Your task to perform on an android device: What's on the menu at IHOP? Image 0: 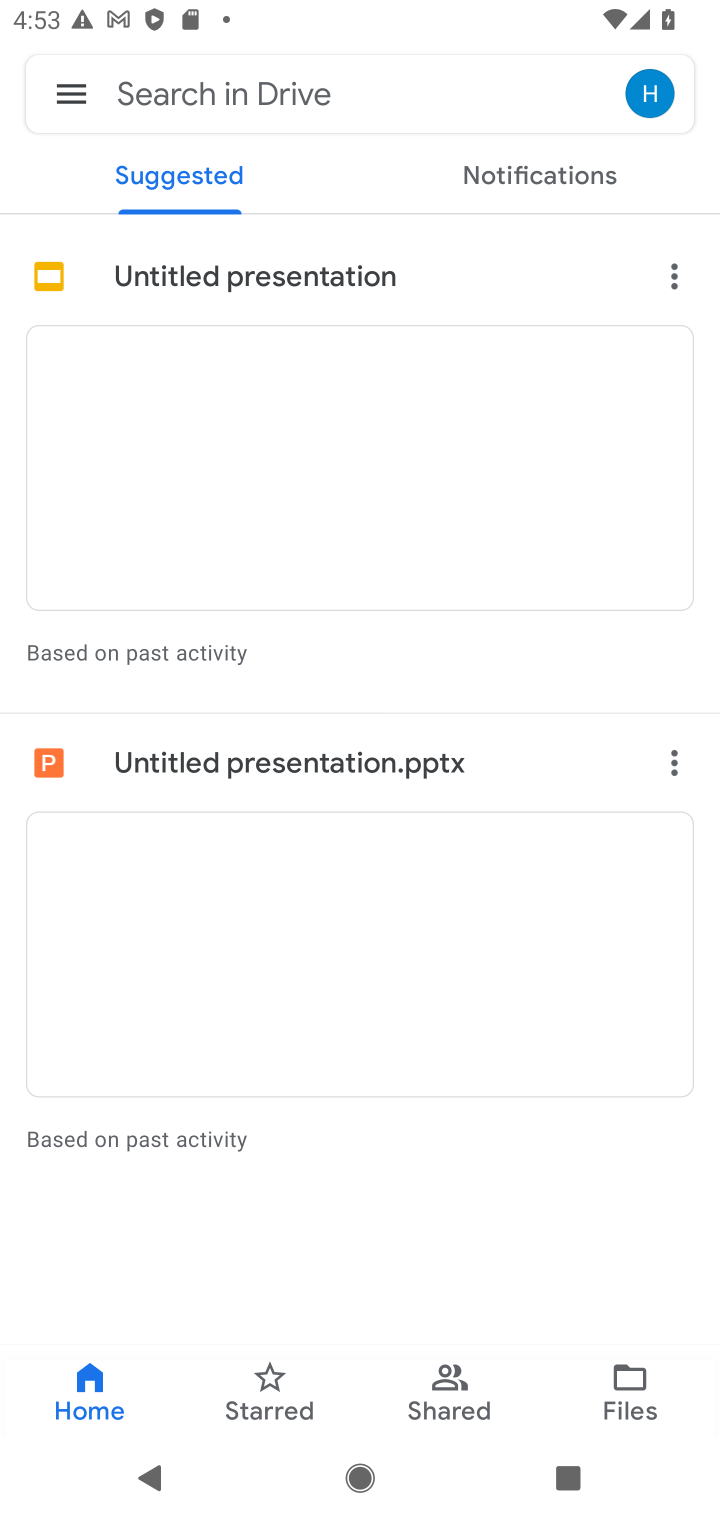
Step 0: press home button
Your task to perform on an android device: What's on the menu at IHOP? Image 1: 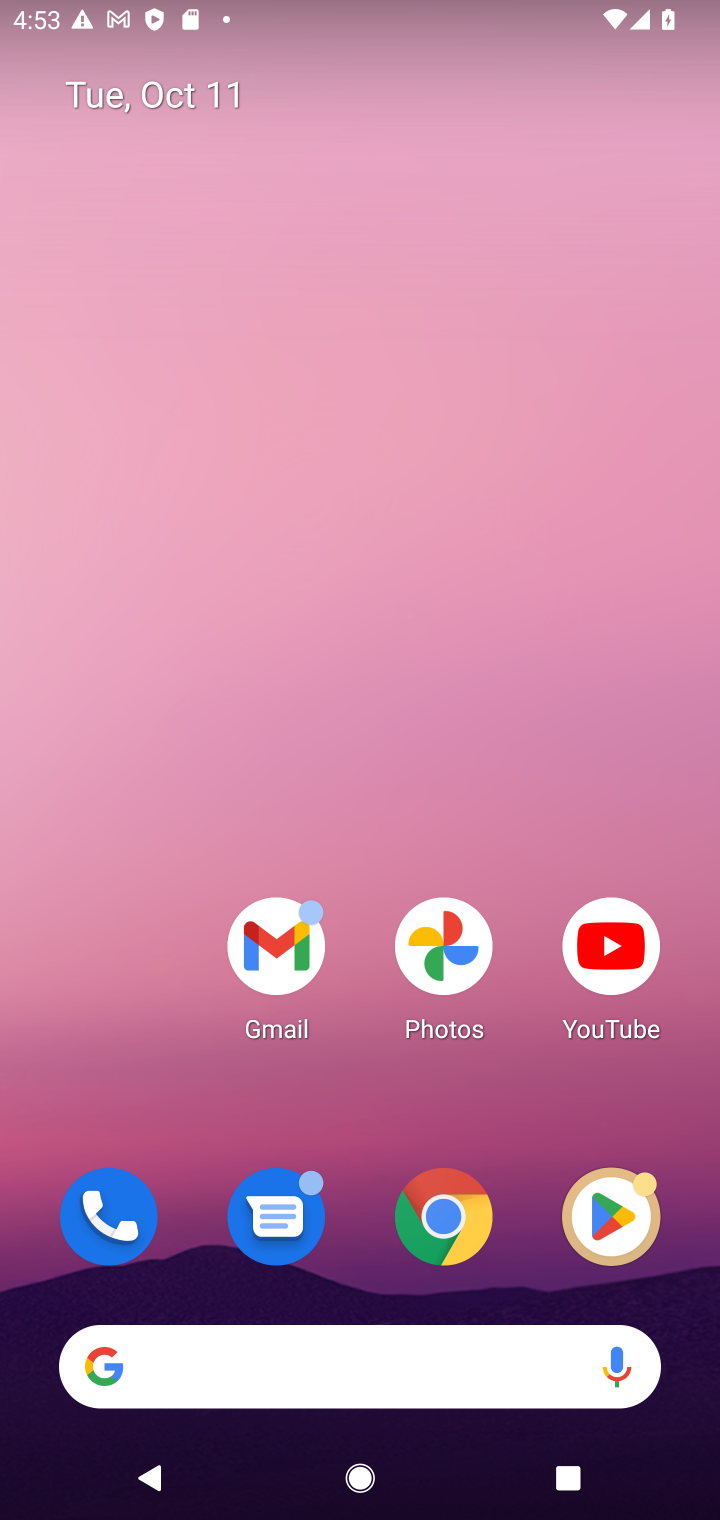
Step 1: click (440, 1222)
Your task to perform on an android device: What's on the menu at IHOP? Image 2: 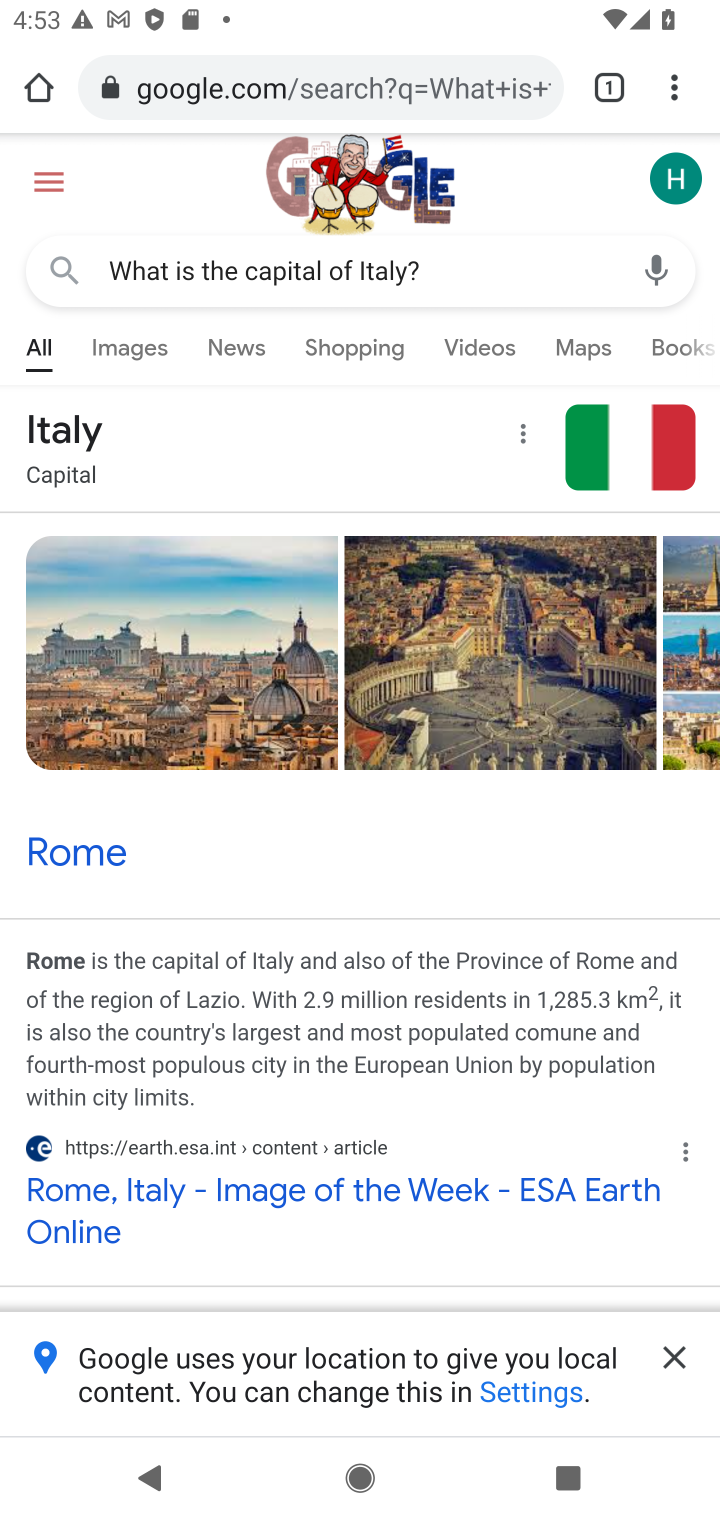
Step 2: click (452, 276)
Your task to perform on an android device: What's on the menu at IHOP? Image 3: 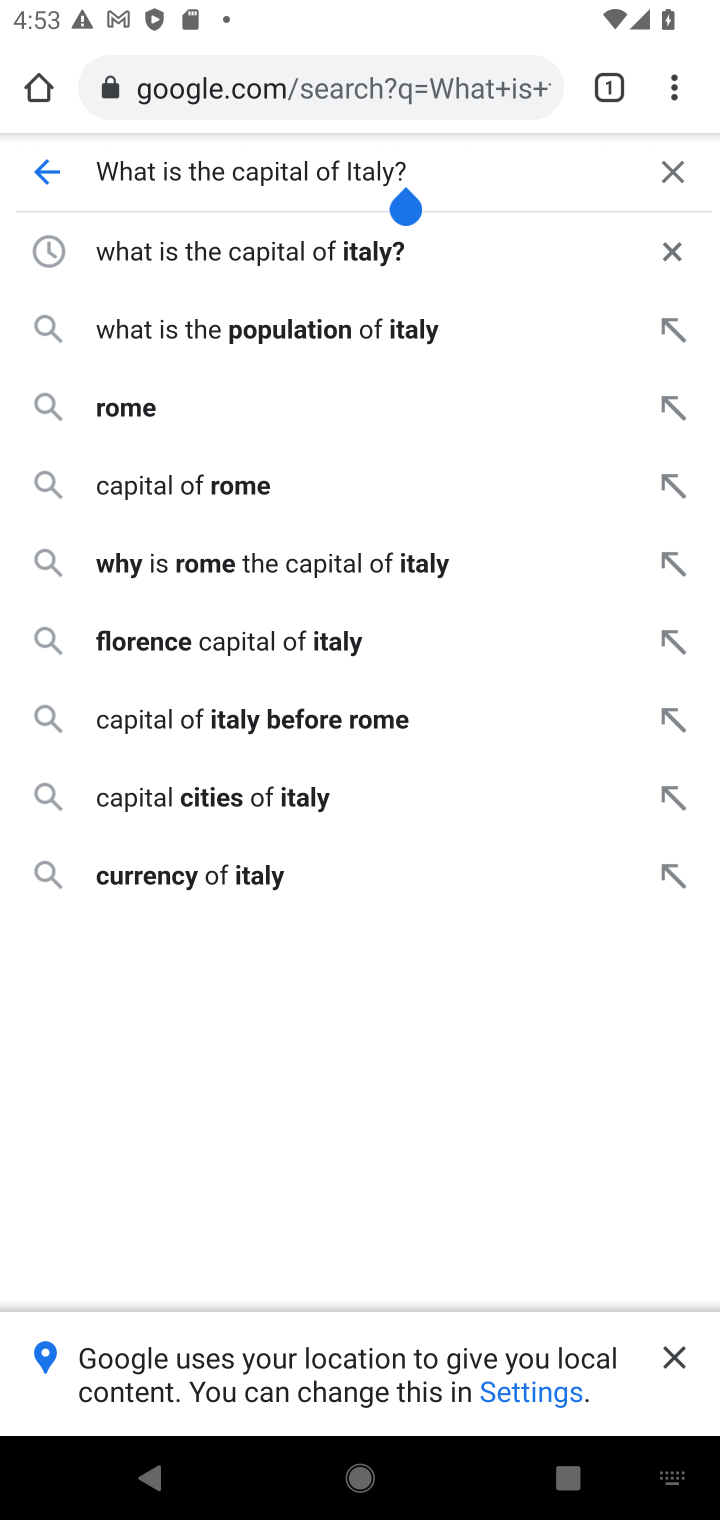
Step 3: click (497, 116)
Your task to perform on an android device: What's on the menu at IHOP? Image 4: 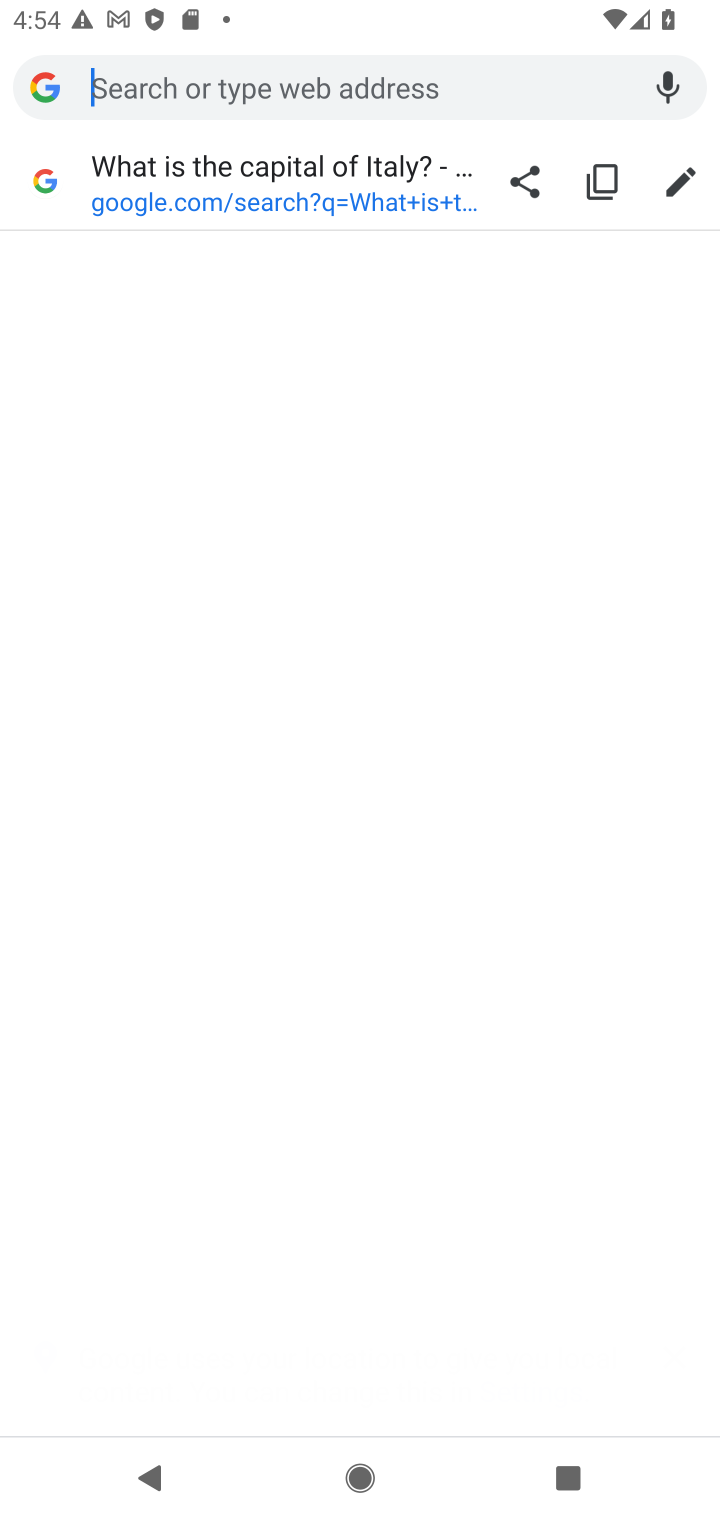
Step 4: type "What's on the menu at IHOP?"
Your task to perform on an android device: What's on the menu at IHOP? Image 5: 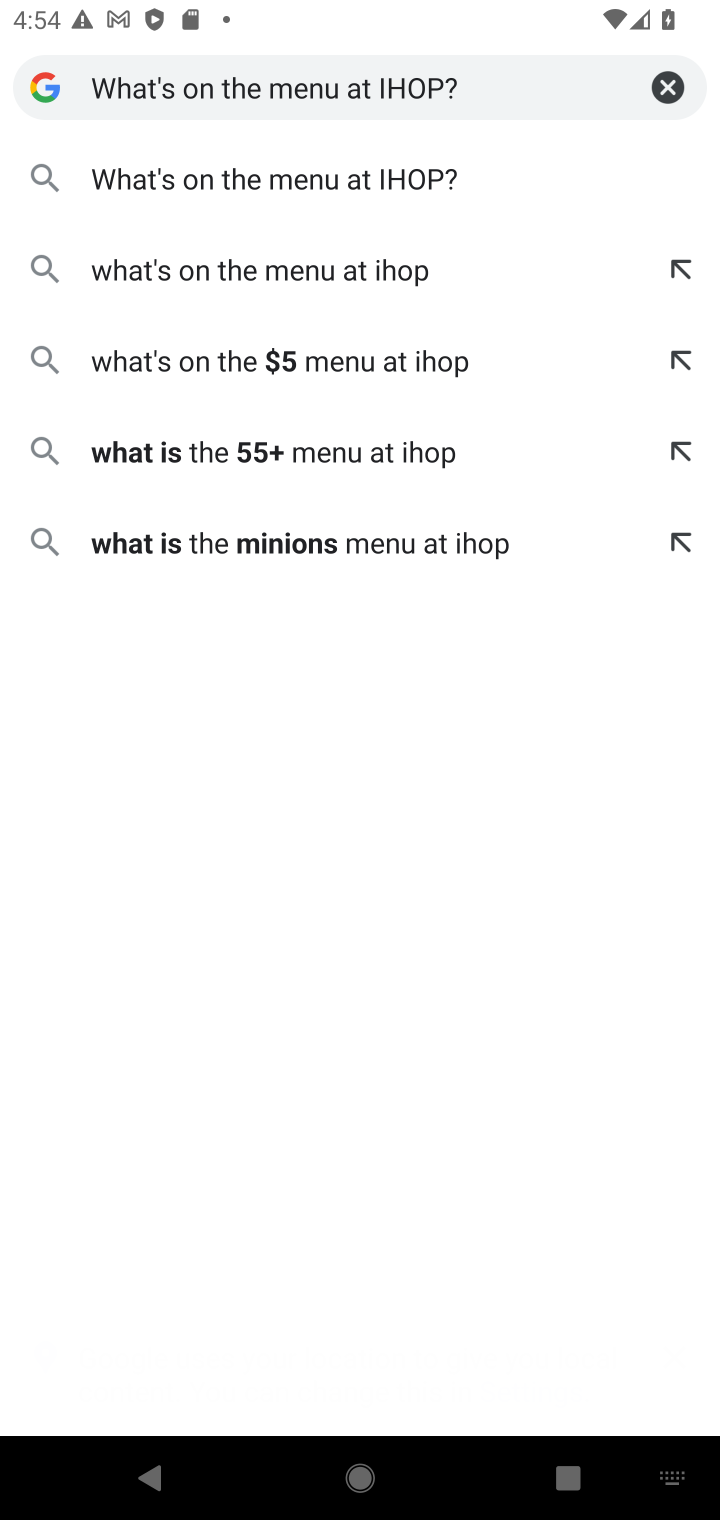
Step 5: click (296, 186)
Your task to perform on an android device: What's on the menu at IHOP? Image 6: 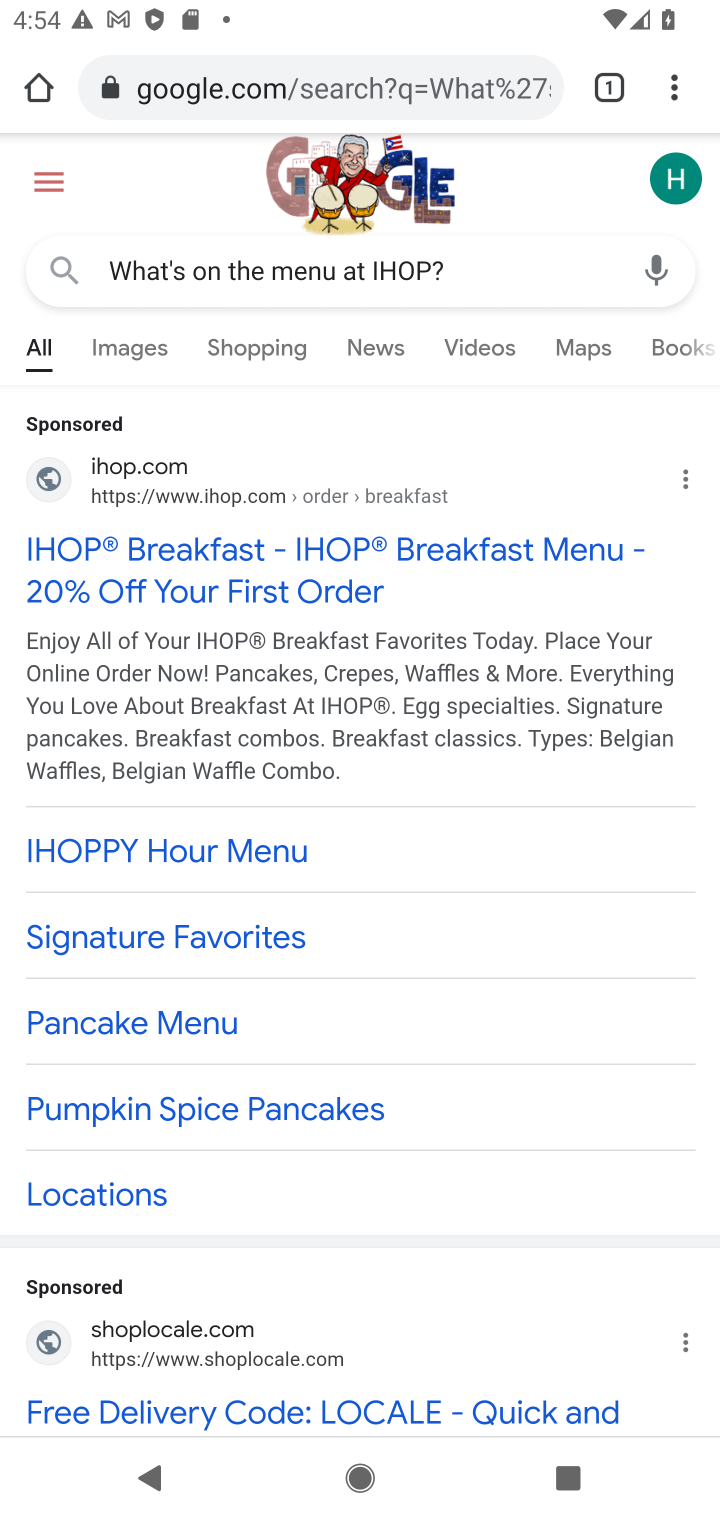
Step 6: drag from (257, 1268) to (363, 729)
Your task to perform on an android device: What's on the menu at IHOP? Image 7: 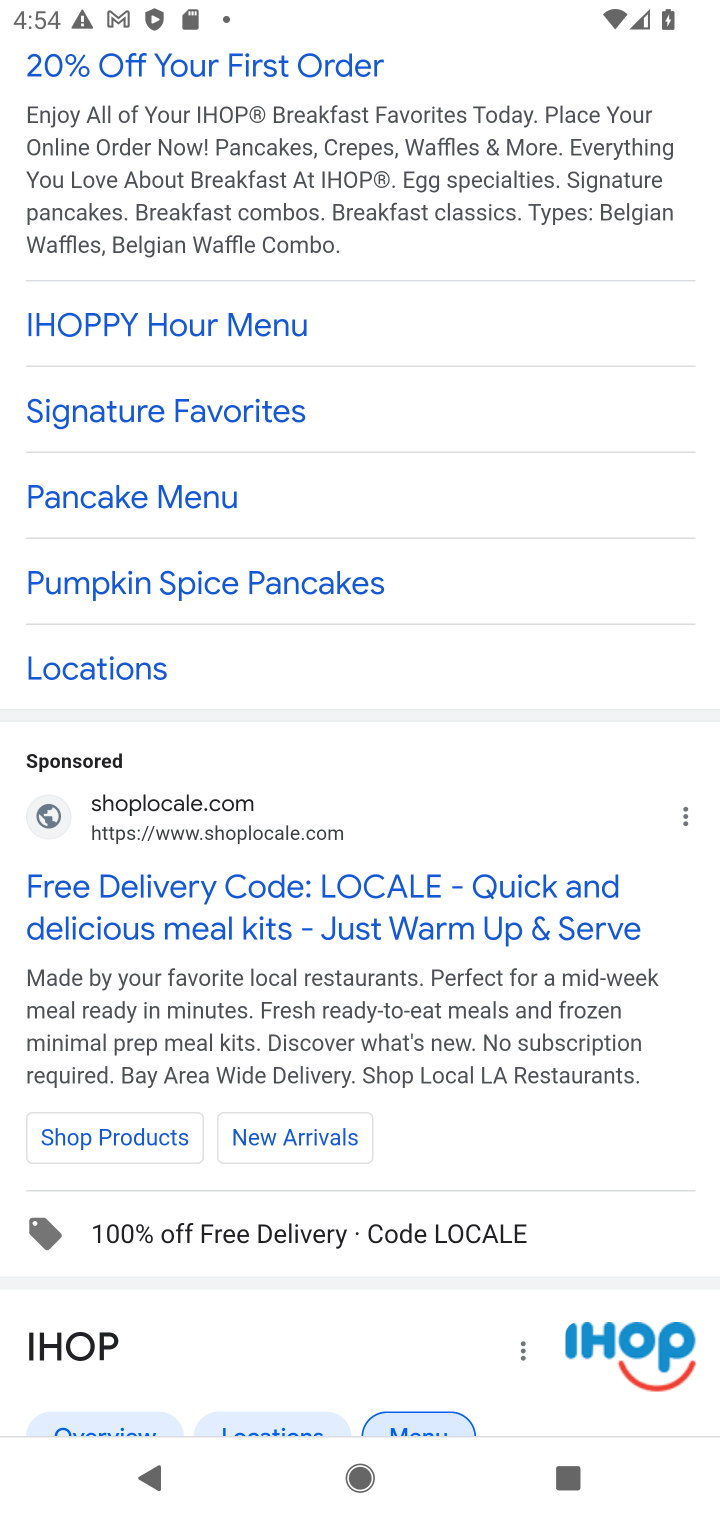
Step 7: drag from (307, 1274) to (477, 671)
Your task to perform on an android device: What's on the menu at IHOP? Image 8: 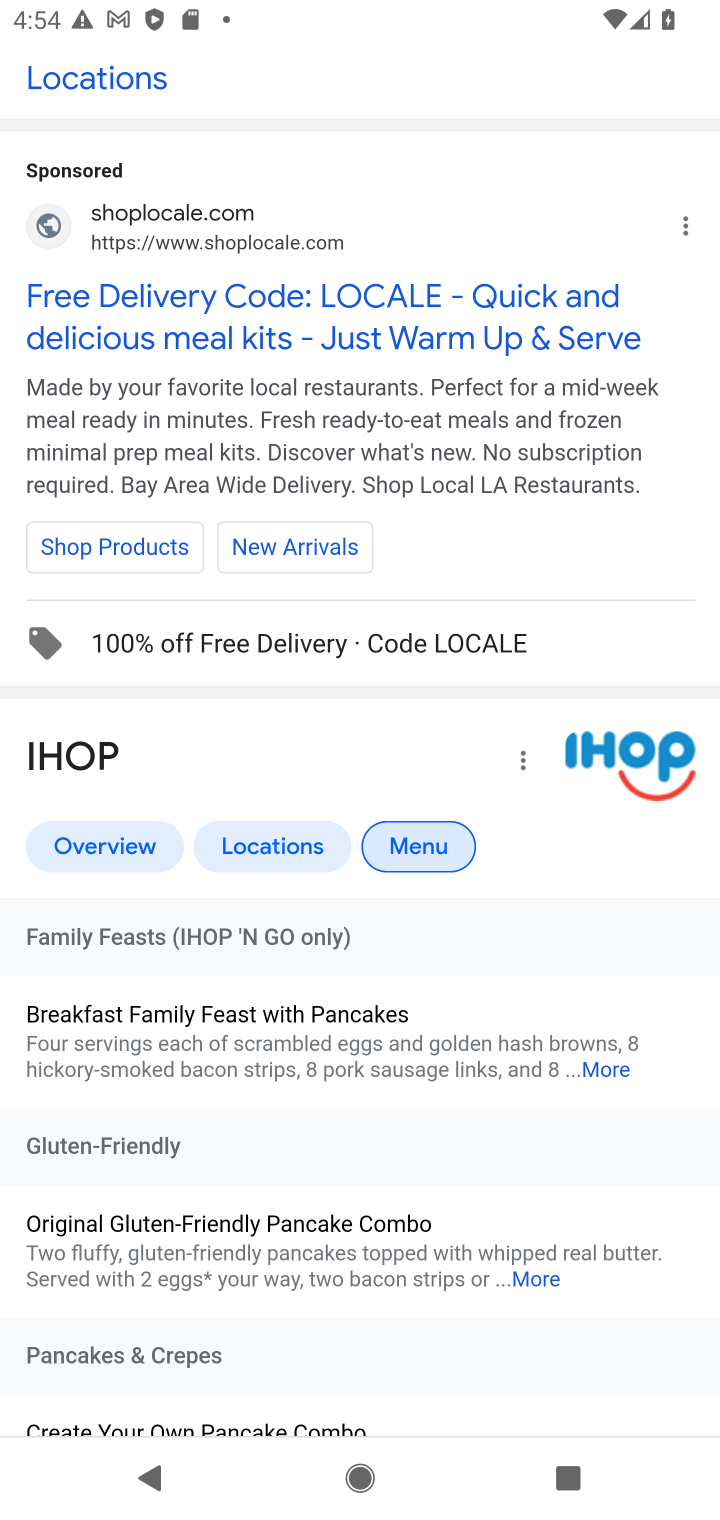
Step 8: drag from (312, 1213) to (493, 865)
Your task to perform on an android device: What's on the menu at IHOP? Image 9: 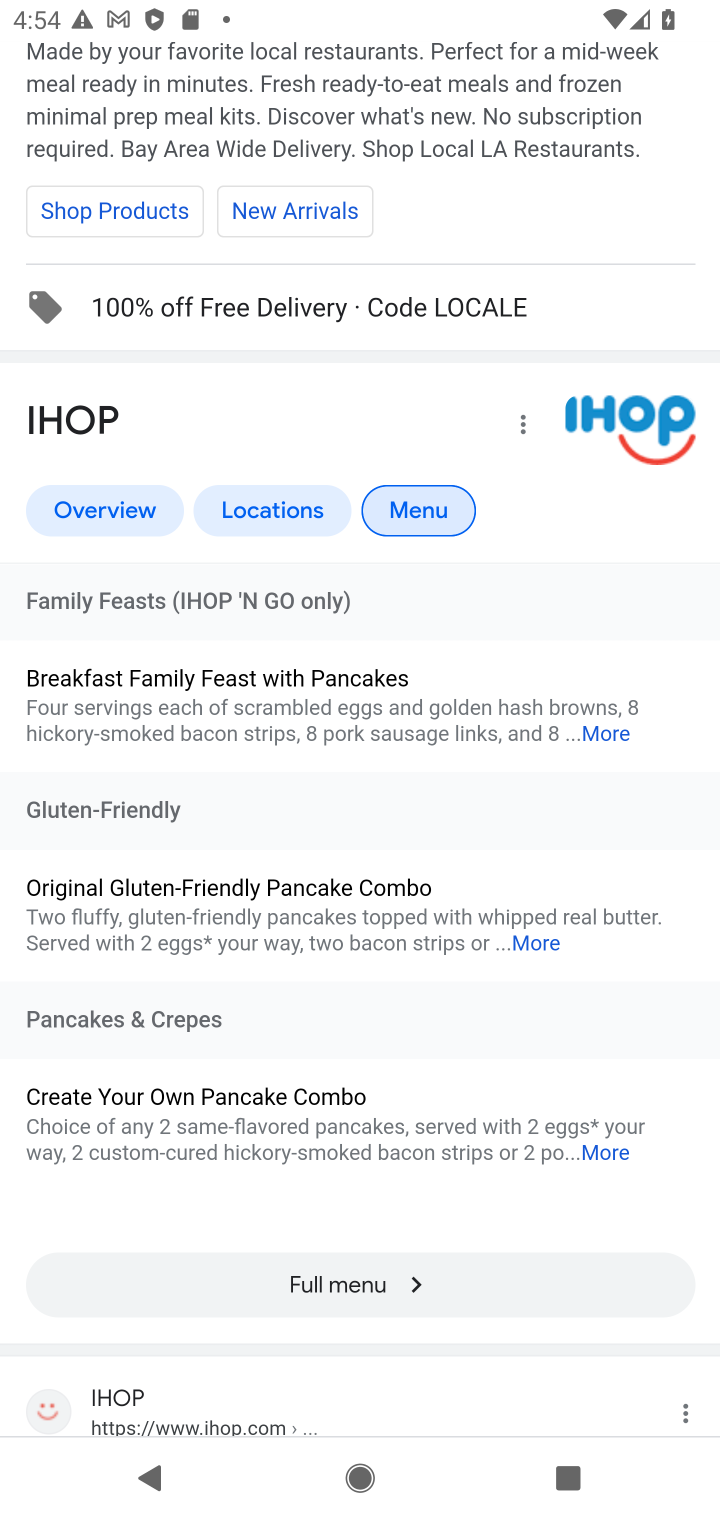
Step 9: click (345, 1291)
Your task to perform on an android device: What's on the menu at IHOP? Image 10: 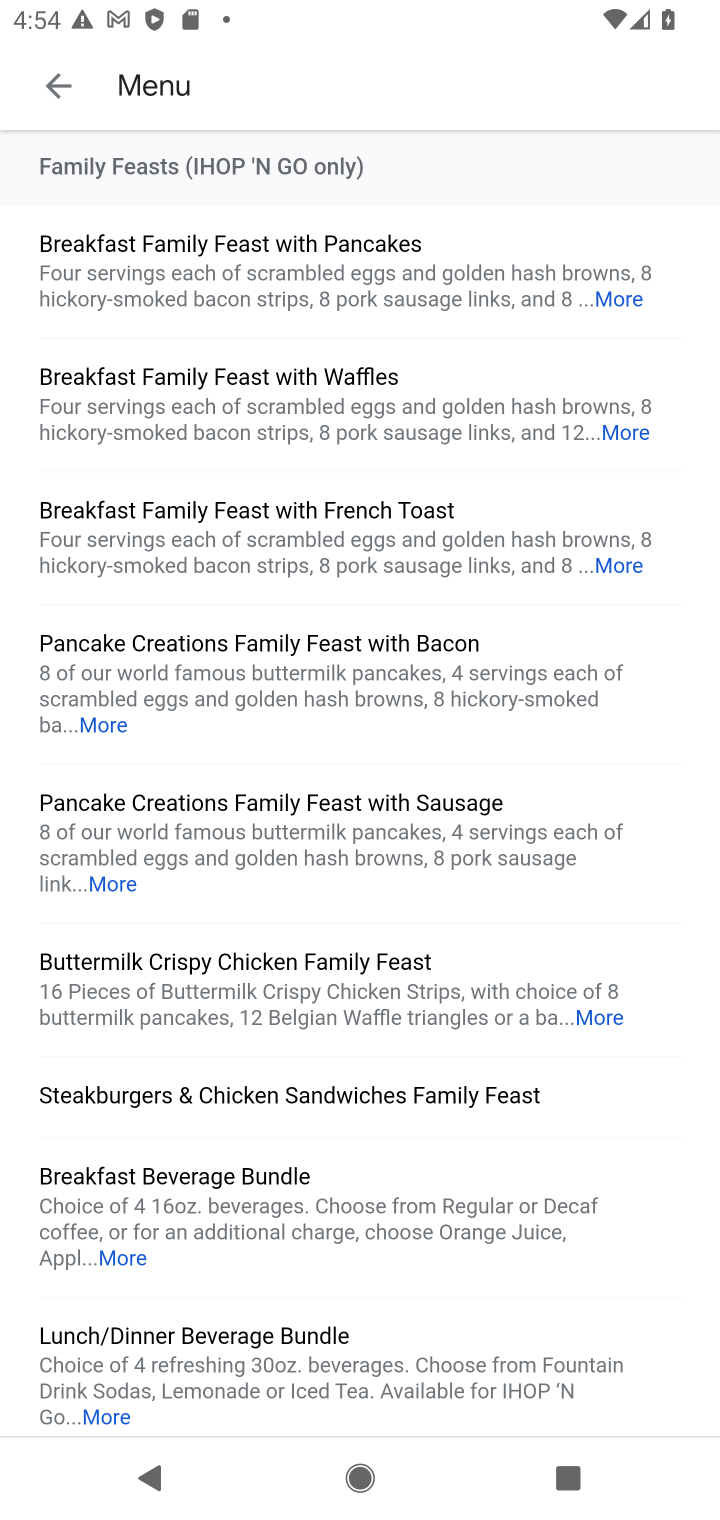
Step 10: task complete